Your task to perform on an android device: Go to network settings Image 0: 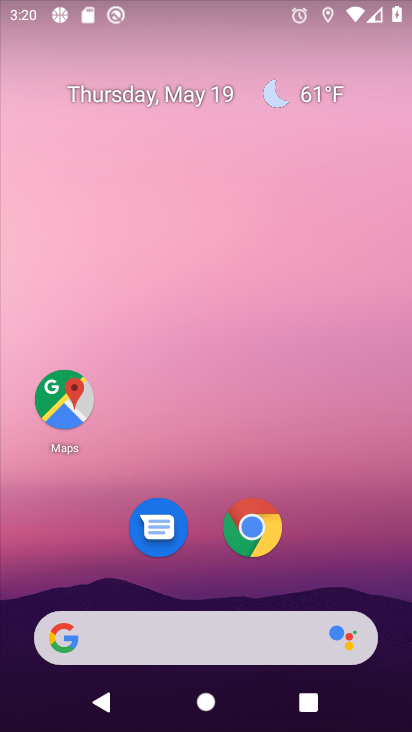
Step 0: drag from (226, 476) to (303, 87)
Your task to perform on an android device: Go to network settings Image 1: 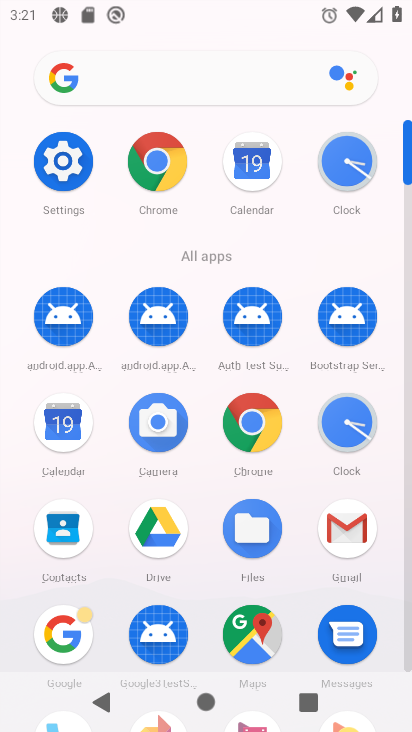
Step 1: click (66, 149)
Your task to perform on an android device: Go to network settings Image 2: 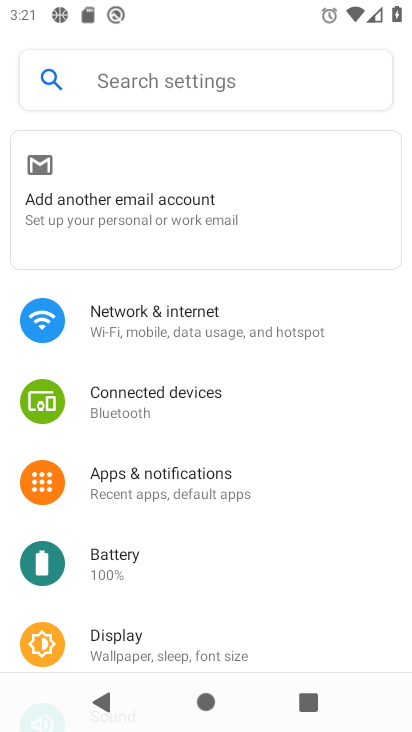
Step 2: click (176, 304)
Your task to perform on an android device: Go to network settings Image 3: 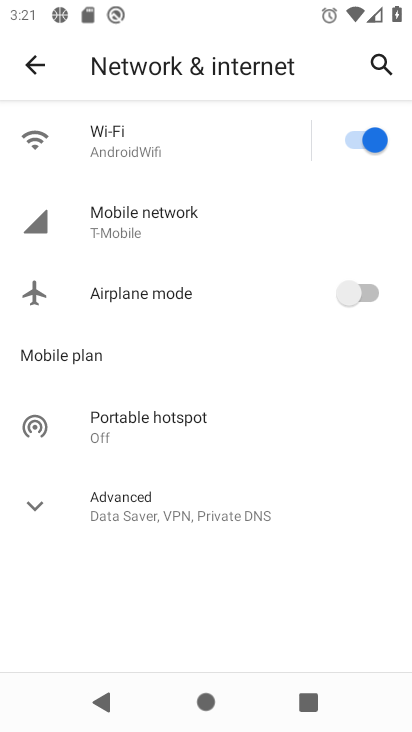
Step 3: task complete